Your task to perform on an android device: turn off data saver in the chrome app Image 0: 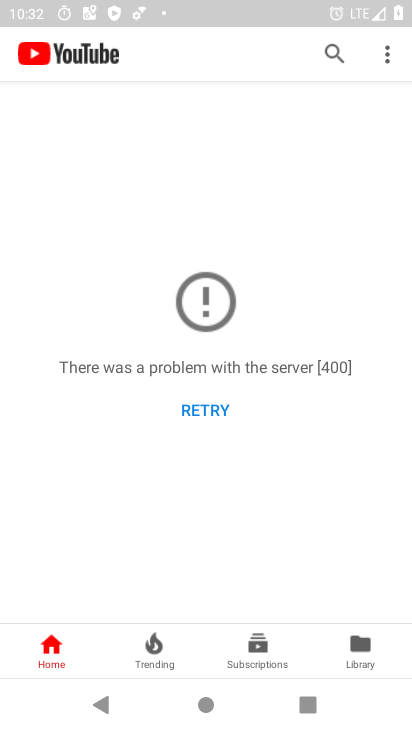
Step 0: press back button
Your task to perform on an android device: turn off data saver in the chrome app Image 1: 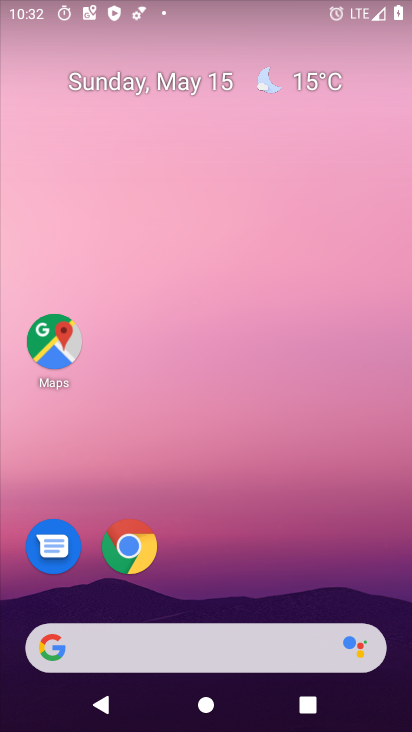
Step 1: drag from (276, 676) to (197, 96)
Your task to perform on an android device: turn off data saver in the chrome app Image 2: 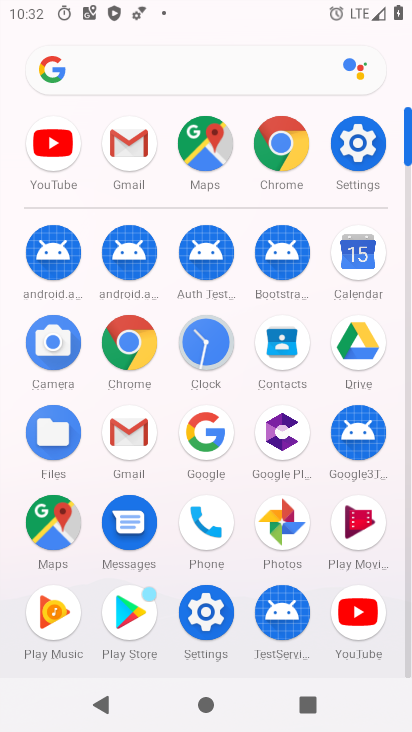
Step 2: click (278, 142)
Your task to perform on an android device: turn off data saver in the chrome app Image 3: 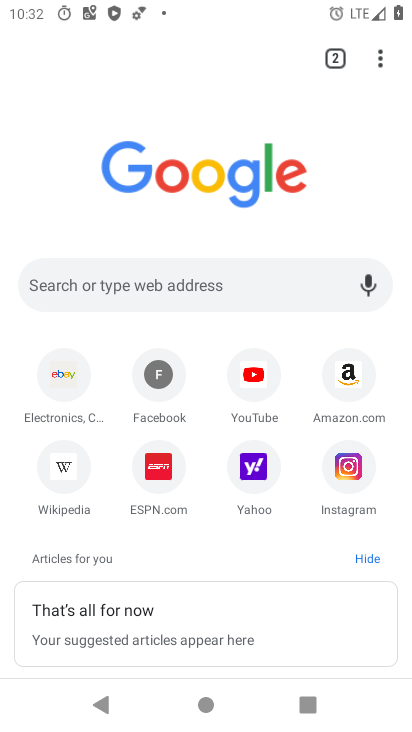
Step 3: drag from (380, 56) to (173, 487)
Your task to perform on an android device: turn off data saver in the chrome app Image 4: 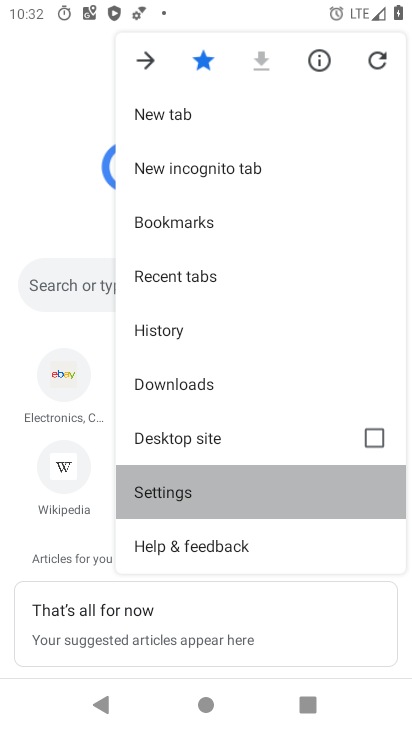
Step 4: click (175, 487)
Your task to perform on an android device: turn off data saver in the chrome app Image 5: 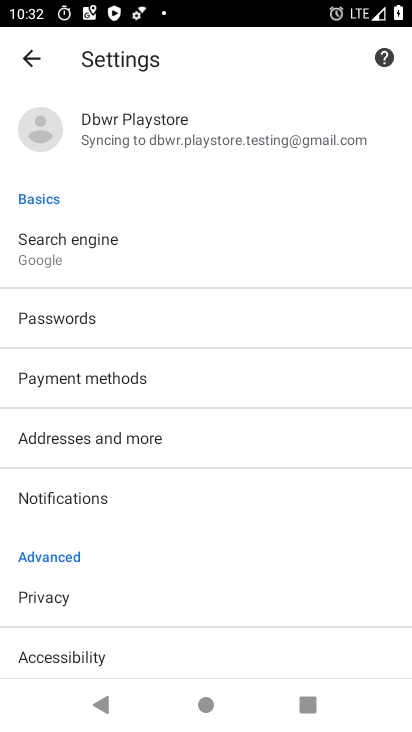
Step 5: drag from (104, 606) to (104, 185)
Your task to perform on an android device: turn off data saver in the chrome app Image 6: 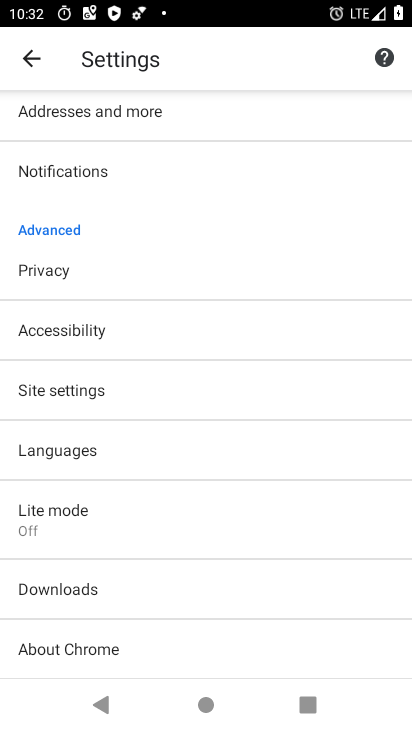
Step 6: click (47, 506)
Your task to perform on an android device: turn off data saver in the chrome app Image 7: 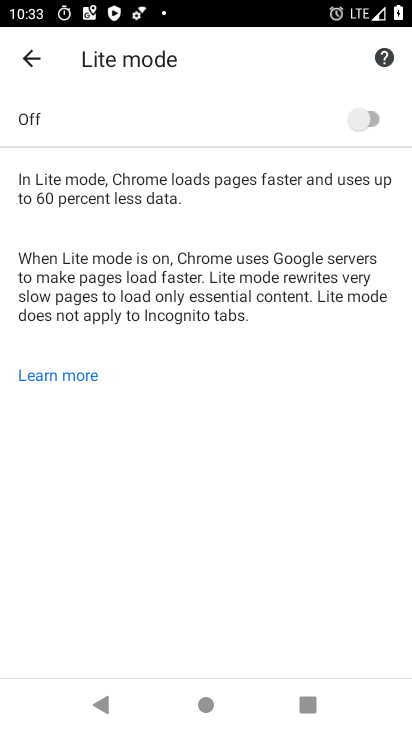
Step 7: task complete